Your task to perform on an android device: find photos in the google photos app Image 0: 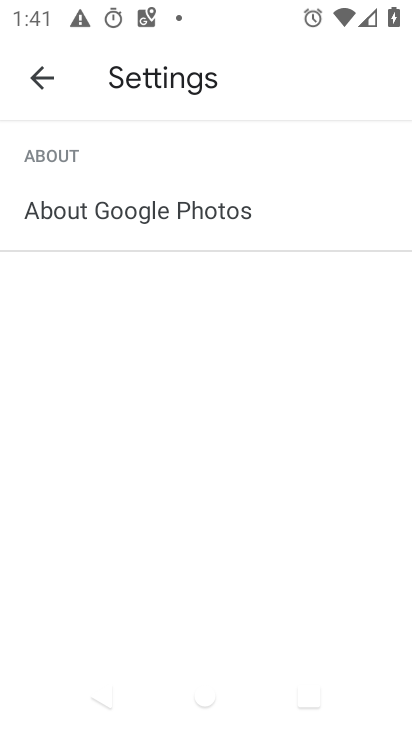
Step 0: press back button
Your task to perform on an android device: find photos in the google photos app Image 1: 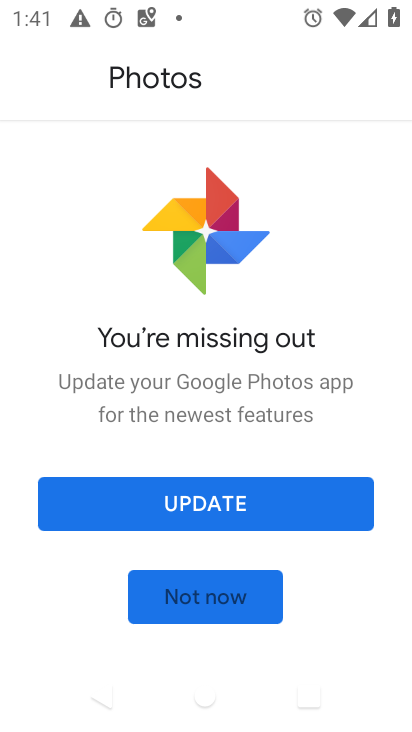
Step 1: click (197, 596)
Your task to perform on an android device: find photos in the google photos app Image 2: 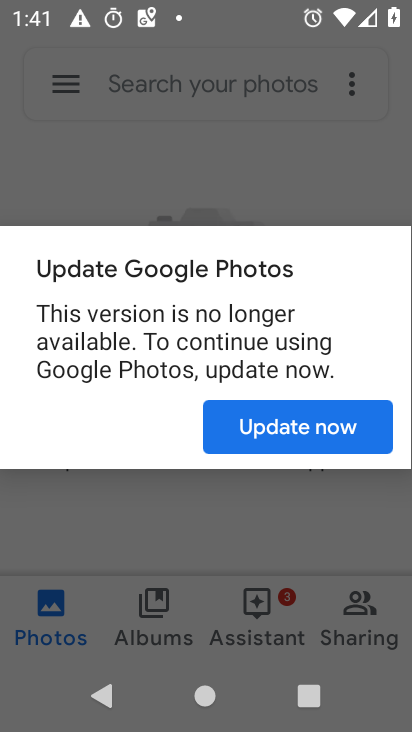
Step 2: click (276, 413)
Your task to perform on an android device: find photos in the google photos app Image 3: 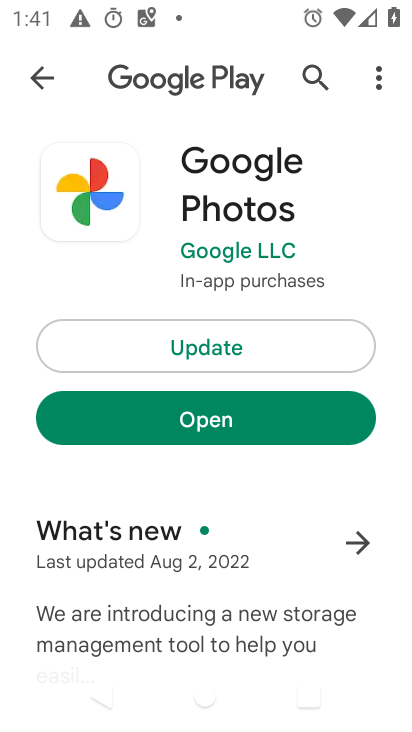
Step 3: click (269, 419)
Your task to perform on an android device: find photos in the google photos app Image 4: 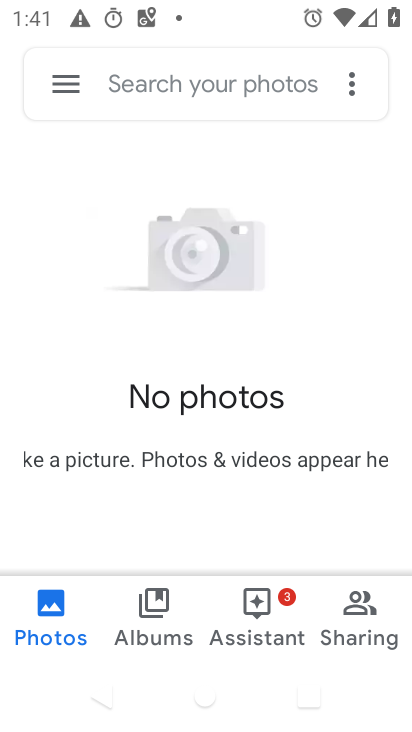
Step 4: task complete